Your task to perform on an android device: Open display settings Image 0: 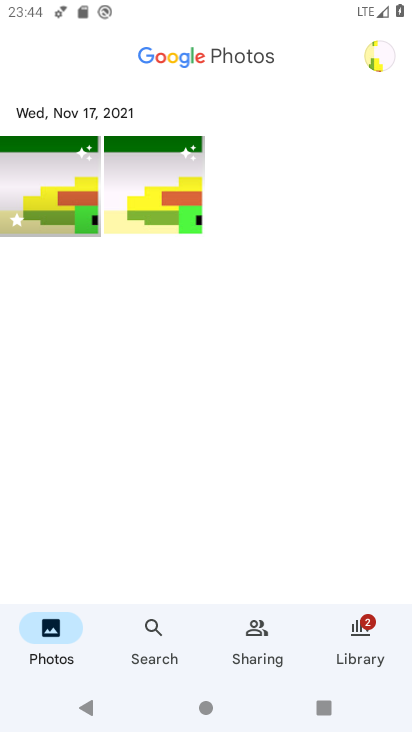
Step 0: drag from (183, 520) to (245, 160)
Your task to perform on an android device: Open display settings Image 1: 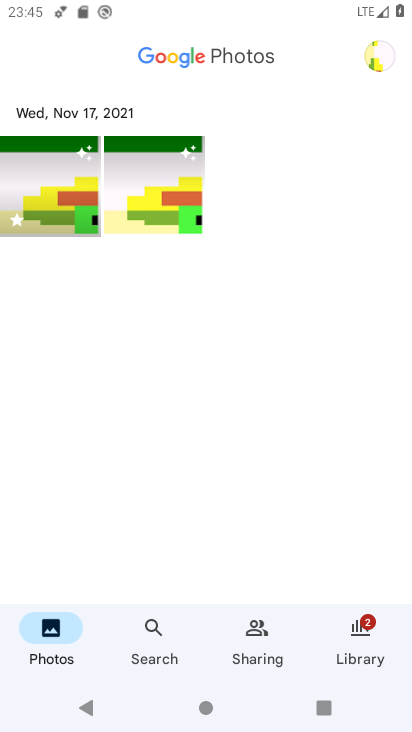
Step 1: click (141, 194)
Your task to perform on an android device: Open display settings Image 2: 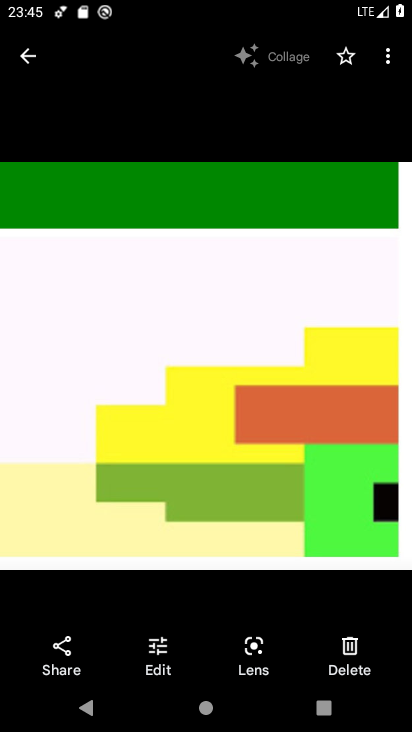
Step 2: press home button
Your task to perform on an android device: Open display settings Image 3: 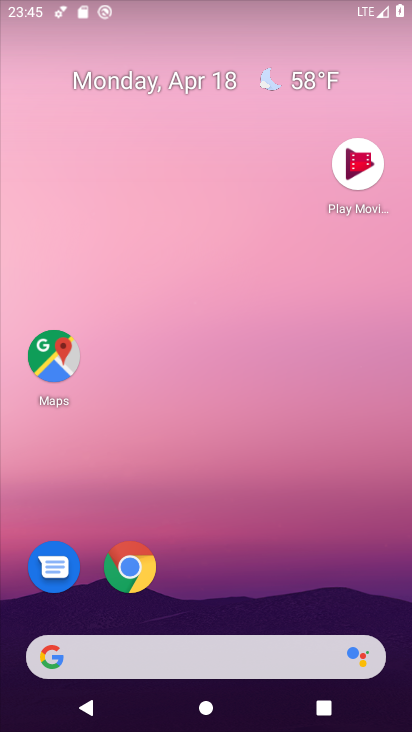
Step 3: drag from (244, 579) to (315, 16)
Your task to perform on an android device: Open display settings Image 4: 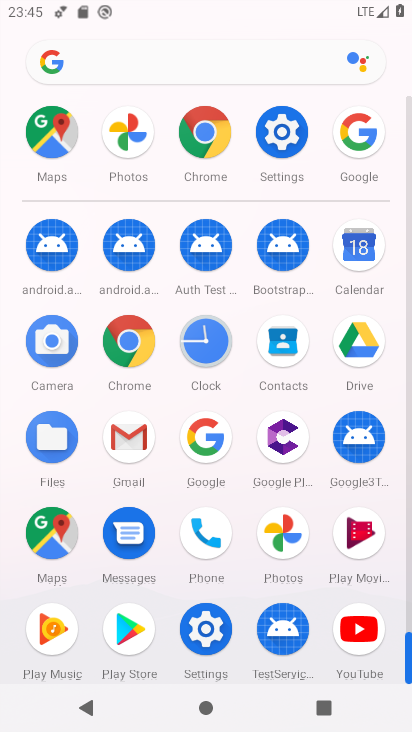
Step 4: click (198, 641)
Your task to perform on an android device: Open display settings Image 5: 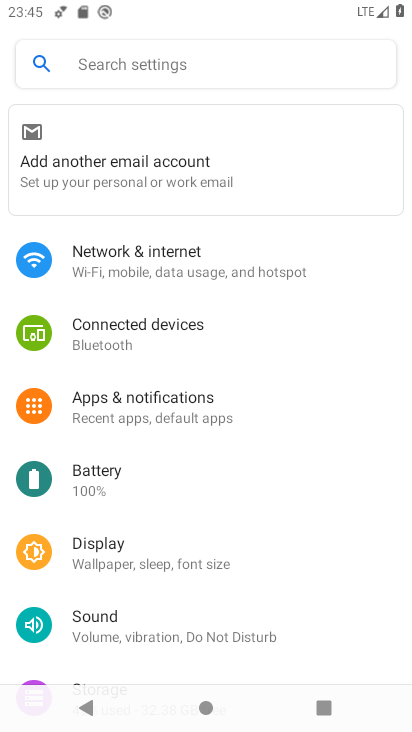
Step 5: drag from (206, 542) to (261, 110)
Your task to perform on an android device: Open display settings Image 6: 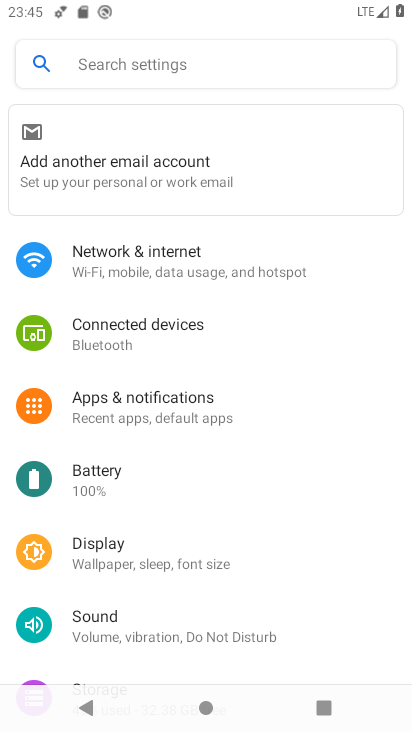
Step 6: click (150, 548)
Your task to perform on an android device: Open display settings Image 7: 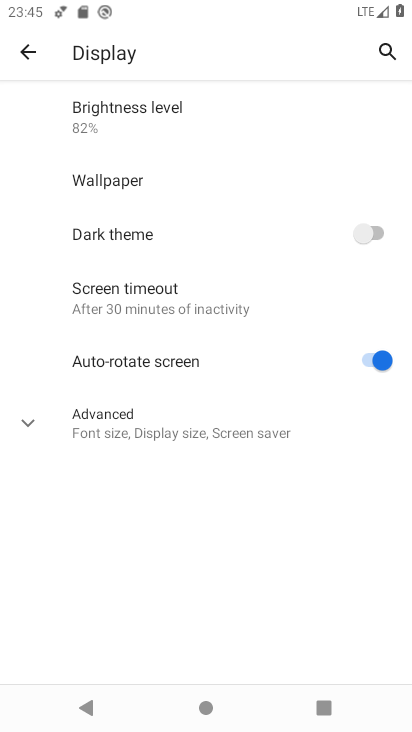
Step 7: task complete